Your task to perform on an android device: Open settings Image 0: 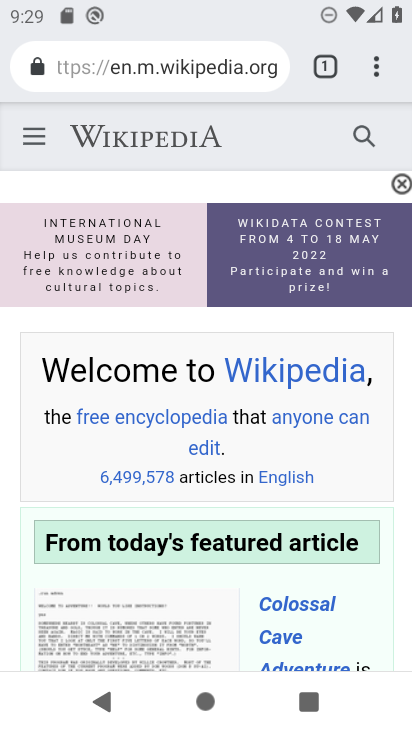
Step 0: press home button
Your task to perform on an android device: Open settings Image 1: 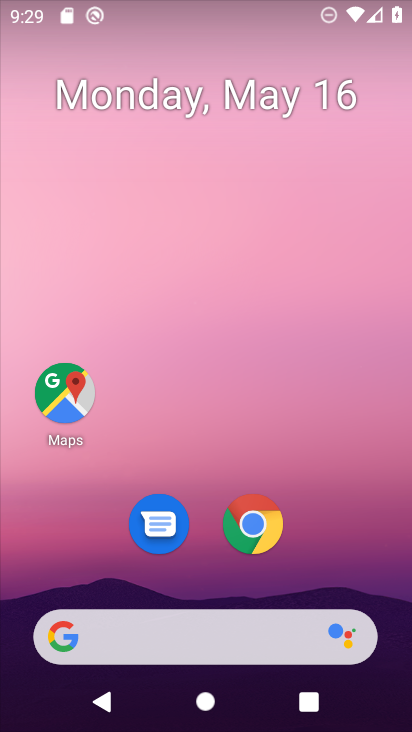
Step 1: drag from (304, 561) to (300, 114)
Your task to perform on an android device: Open settings Image 2: 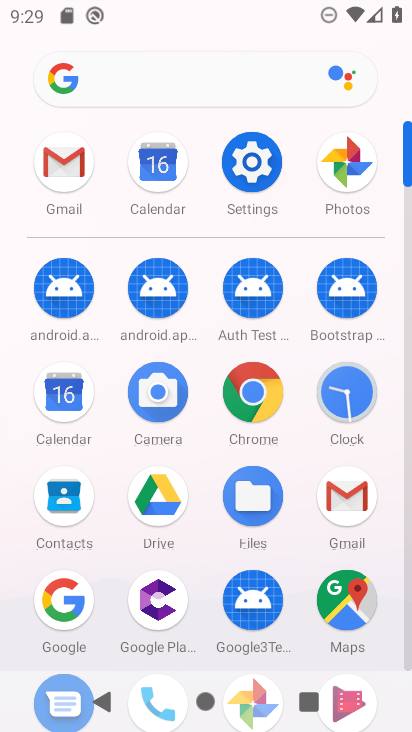
Step 2: click (266, 158)
Your task to perform on an android device: Open settings Image 3: 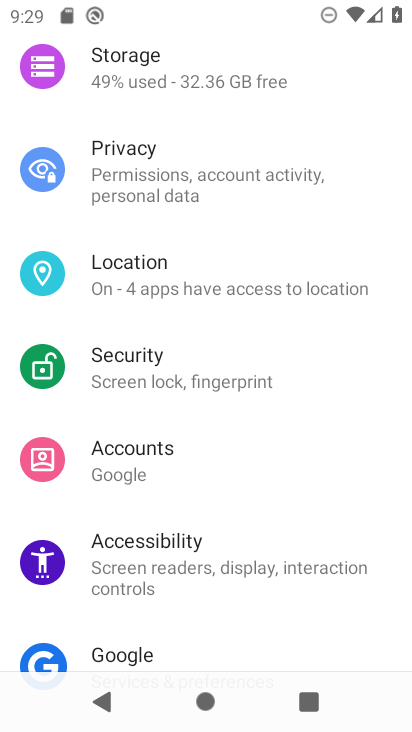
Step 3: task complete